Your task to perform on an android device: turn off smart reply in the gmail app Image 0: 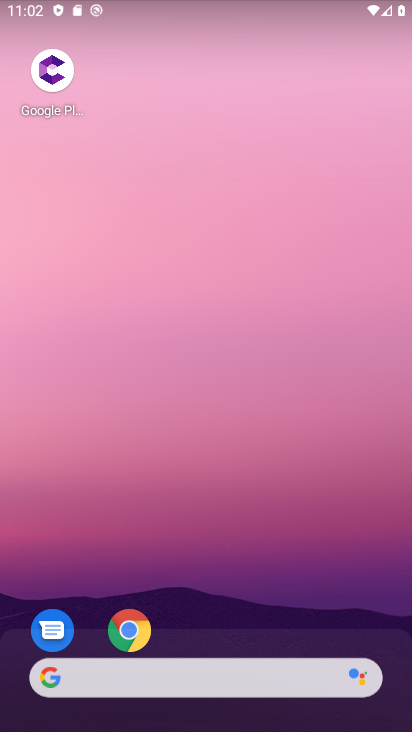
Step 0: drag from (235, 638) to (308, 35)
Your task to perform on an android device: turn off smart reply in the gmail app Image 1: 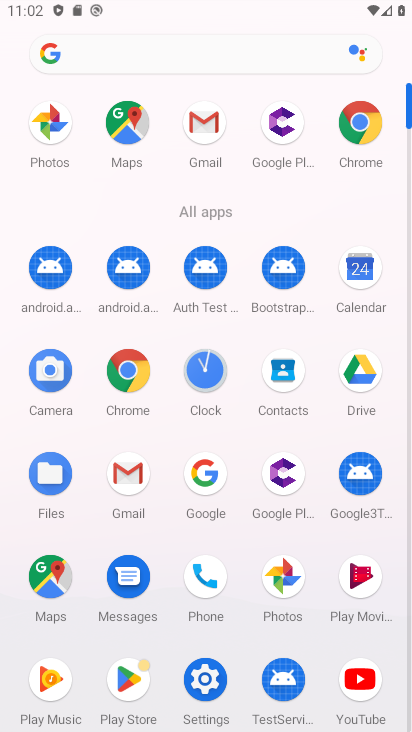
Step 1: click (133, 469)
Your task to perform on an android device: turn off smart reply in the gmail app Image 2: 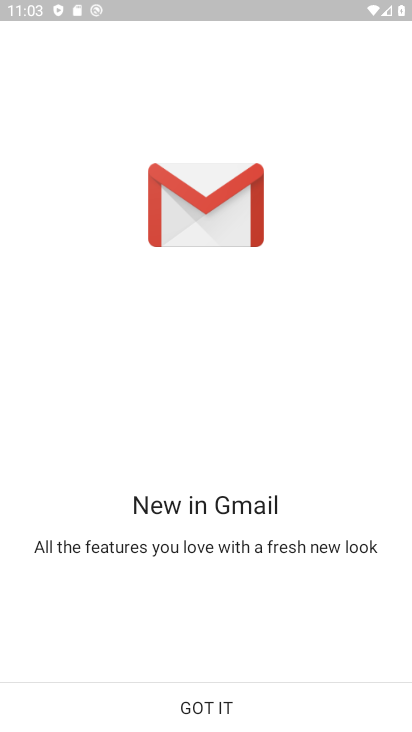
Step 2: click (206, 709)
Your task to perform on an android device: turn off smart reply in the gmail app Image 3: 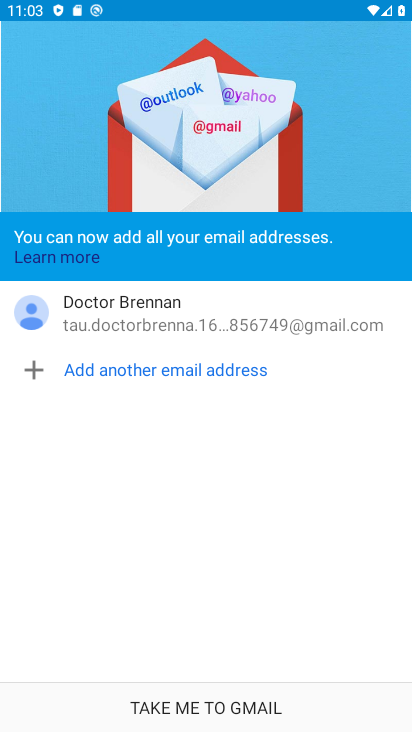
Step 3: click (196, 709)
Your task to perform on an android device: turn off smart reply in the gmail app Image 4: 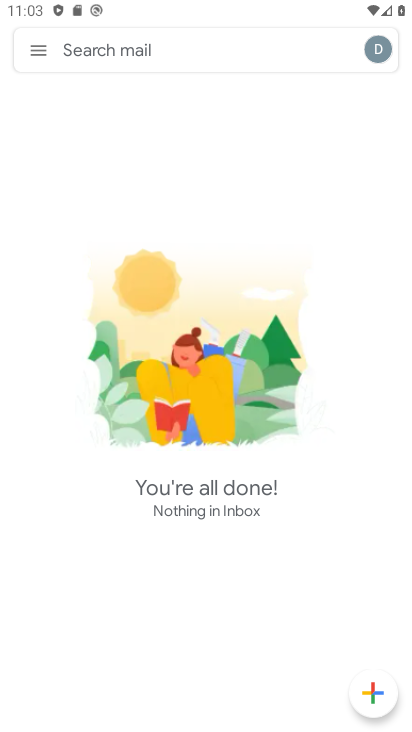
Step 4: click (37, 48)
Your task to perform on an android device: turn off smart reply in the gmail app Image 5: 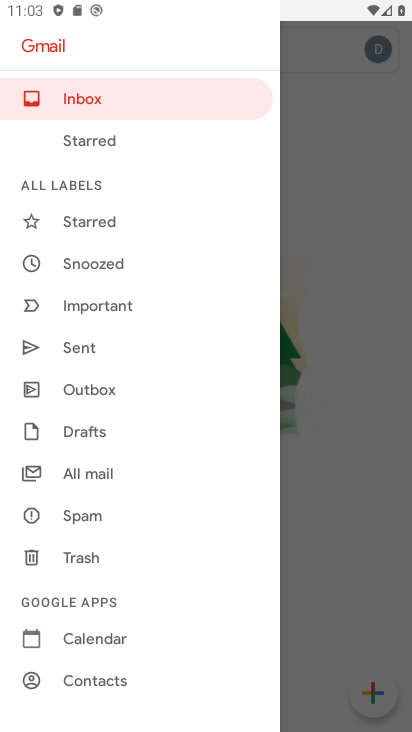
Step 5: drag from (148, 664) to (188, 238)
Your task to perform on an android device: turn off smart reply in the gmail app Image 6: 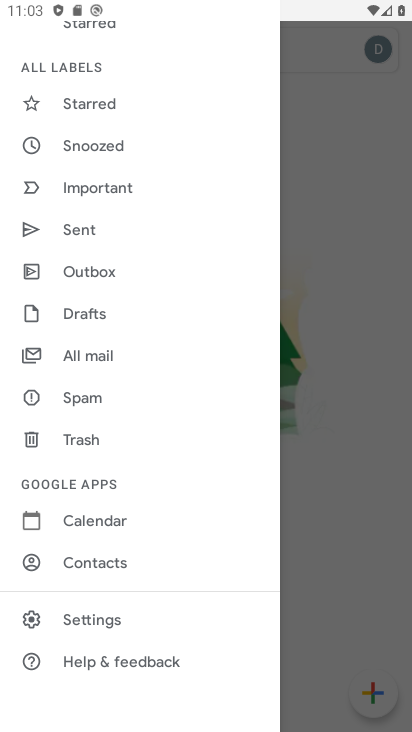
Step 6: click (126, 614)
Your task to perform on an android device: turn off smart reply in the gmail app Image 7: 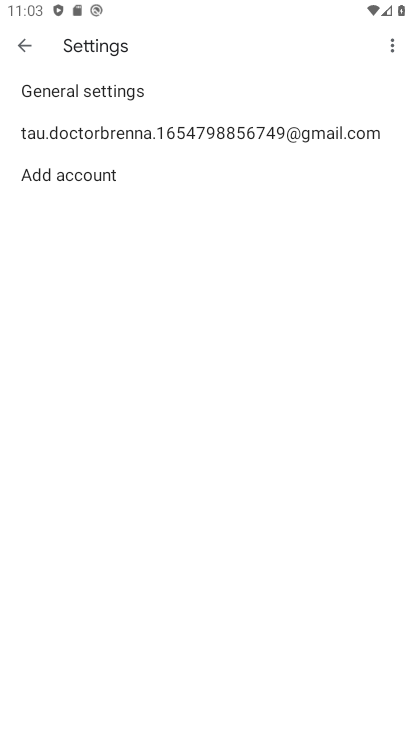
Step 7: click (157, 126)
Your task to perform on an android device: turn off smart reply in the gmail app Image 8: 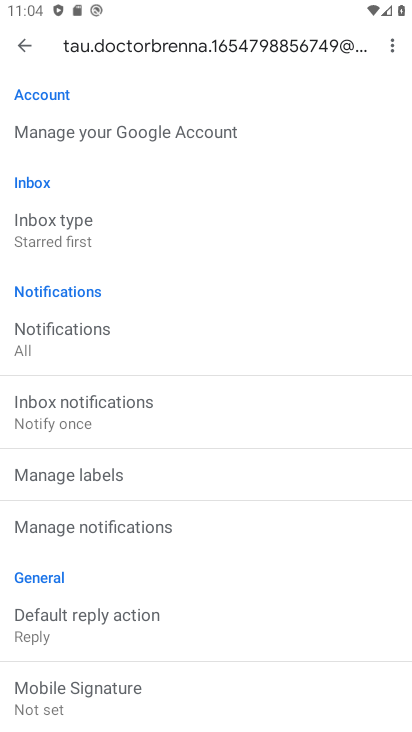
Step 8: drag from (203, 665) to (235, 156)
Your task to perform on an android device: turn off smart reply in the gmail app Image 9: 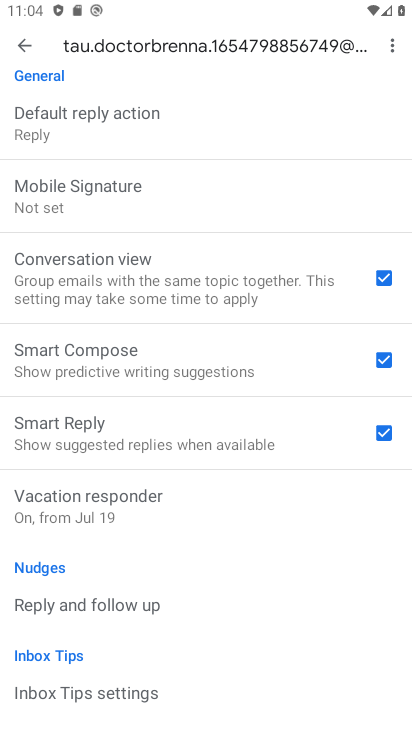
Step 9: drag from (175, 649) to (209, 449)
Your task to perform on an android device: turn off smart reply in the gmail app Image 10: 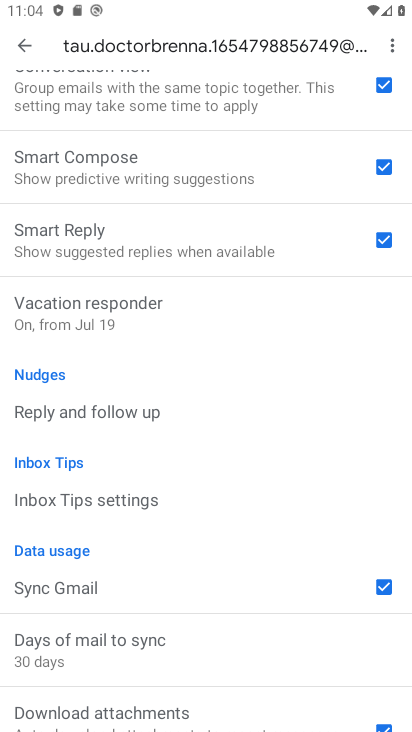
Step 10: click (386, 235)
Your task to perform on an android device: turn off smart reply in the gmail app Image 11: 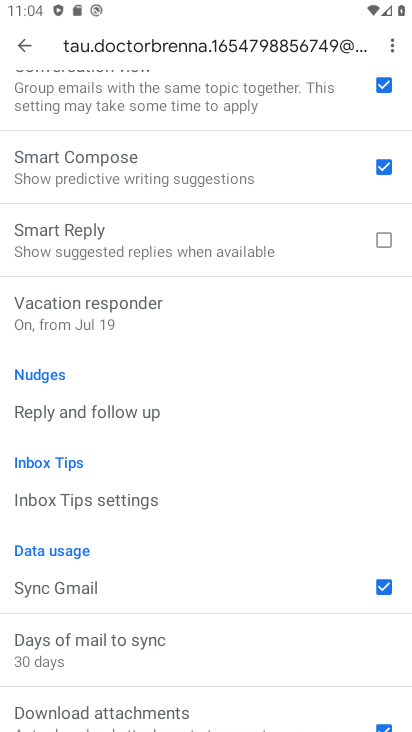
Step 11: task complete